Your task to perform on an android device: Go to privacy settings Image 0: 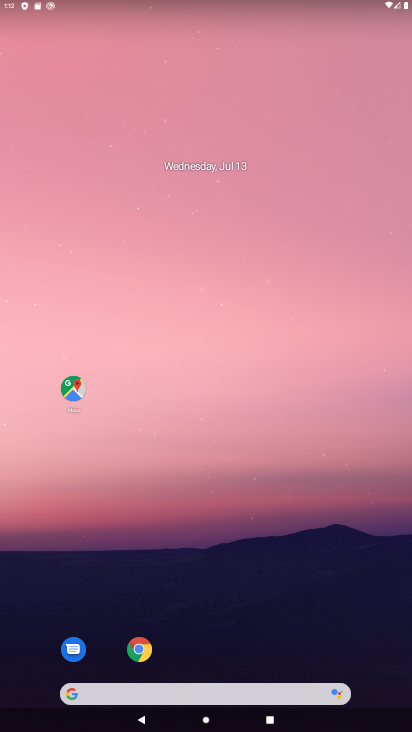
Step 0: press home button
Your task to perform on an android device: Go to privacy settings Image 1: 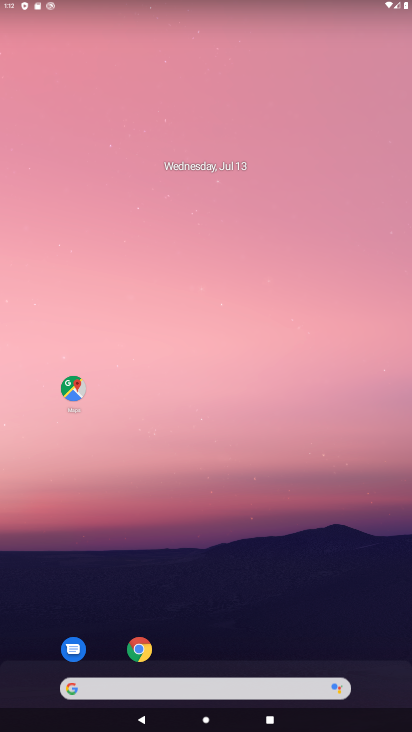
Step 1: drag from (265, 431) to (275, 0)
Your task to perform on an android device: Go to privacy settings Image 2: 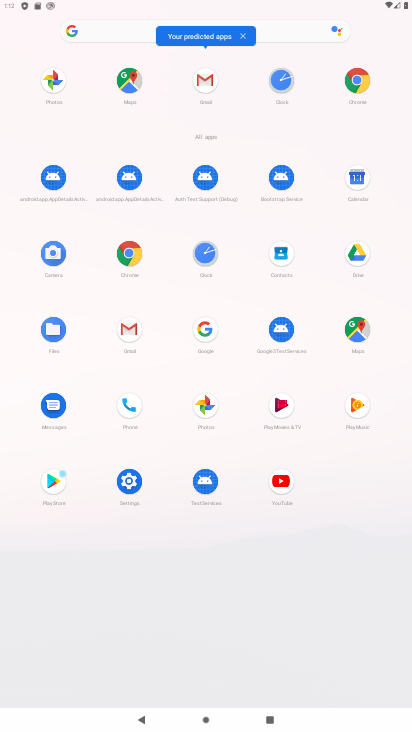
Step 2: click (124, 482)
Your task to perform on an android device: Go to privacy settings Image 3: 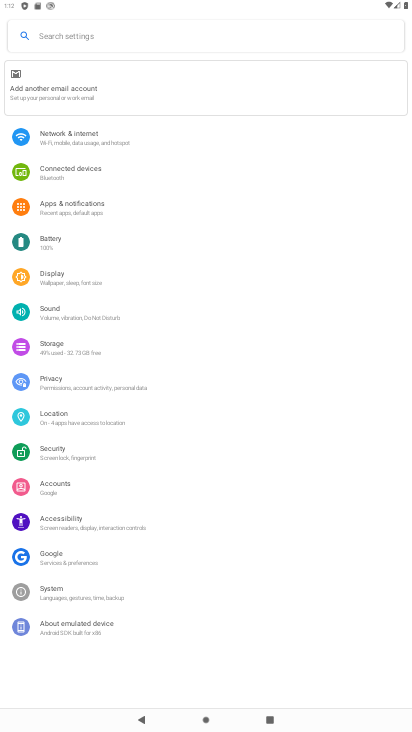
Step 3: click (86, 386)
Your task to perform on an android device: Go to privacy settings Image 4: 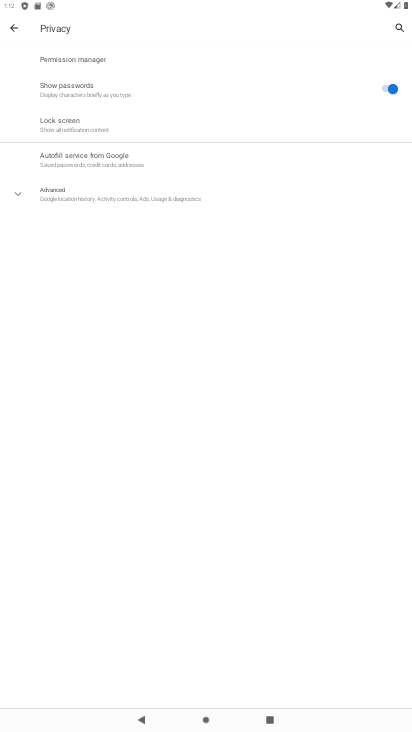
Step 4: task complete